Your task to perform on an android device: Open Google Chrome and click the shortcut for Amazon.com Image 0: 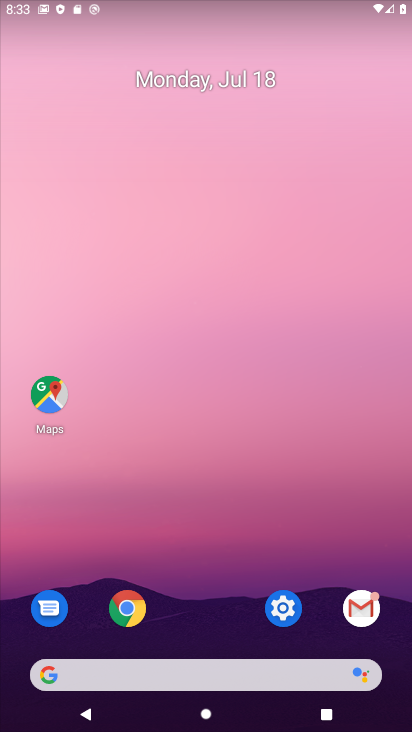
Step 0: press home button
Your task to perform on an android device: Open Google Chrome and click the shortcut for Amazon.com Image 1: 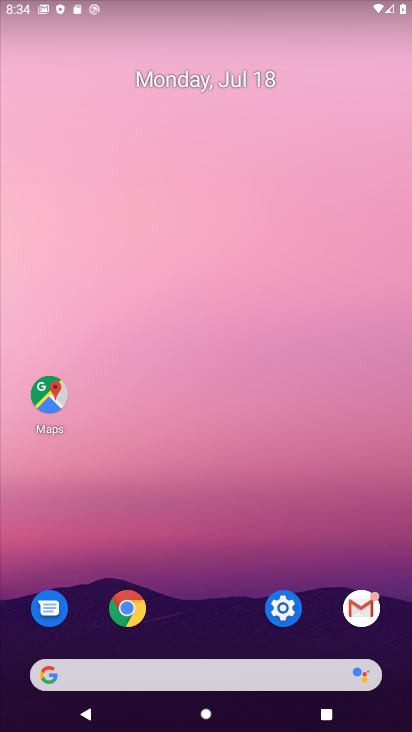
Step 1: click (131, 612)
Your task to perform on an android device: Open Google Chrome and click the shortcut for Amazon.com Image 2: 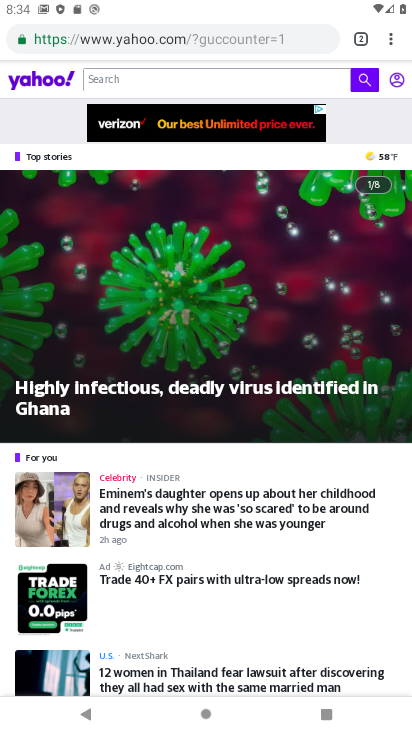
Step 2: click (359, 34)
Your task to perform on an android device: Open Google Chrome and click the shortcut for Amazon.com Image 3: 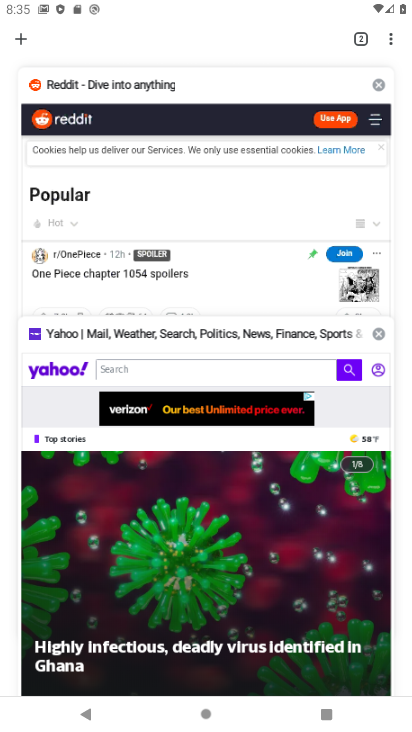
Step 3: click (19, 40)
Your task to perform on an android device: Open Google Chrome and click the shortcut for Amazon.com Image 4: 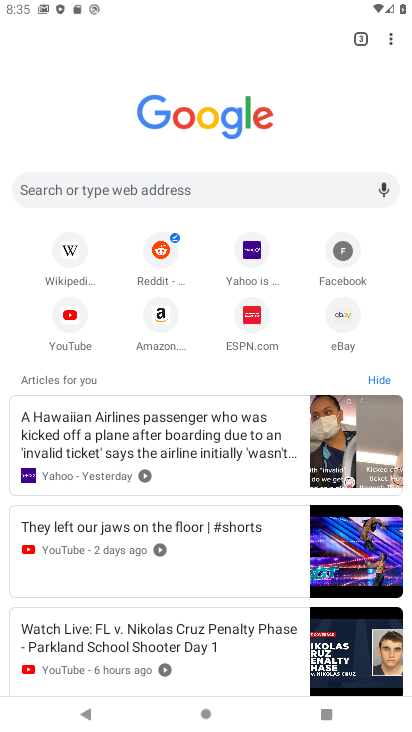
Step 4: click (172, 315)
Your task to perform on an android device: Open Google Chrome and click the shortcut for Amazon.com Image 5: 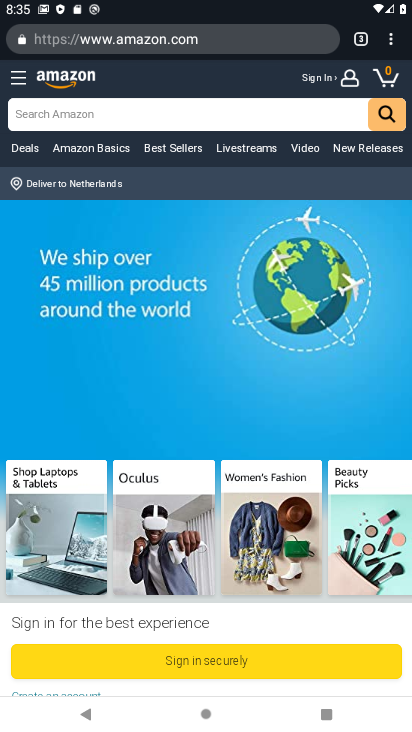
Step 5: click (394, 39)
Your task to perform on an android device: Open Google Chrome and click the shortcut for Amazon.com Image 6: 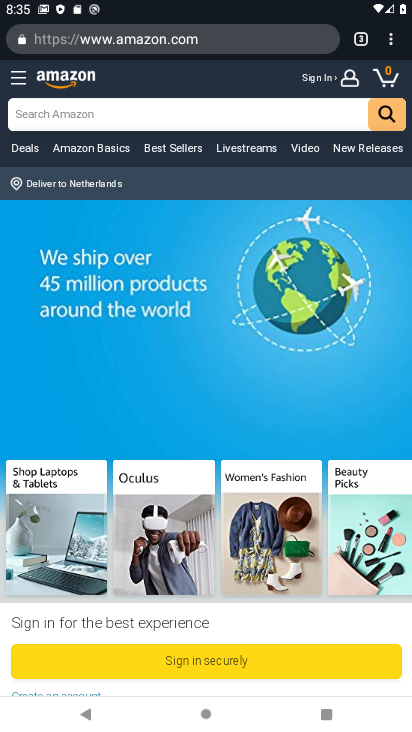
Step 6: click (386, 44)
Your task to perform on an android device: Open Google Chrome and click the shortcut for Amazon.com Image 7: 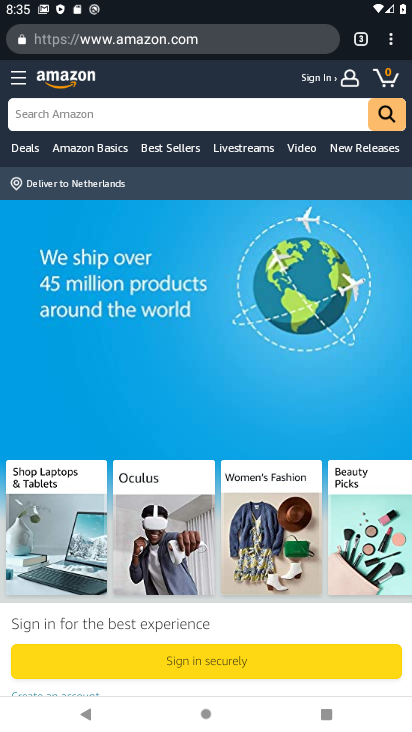
Step 7: click (396, 50)
Your task to perform on an android device: Open Google Chrome and click the shortcut for Amazon.com Image 8: 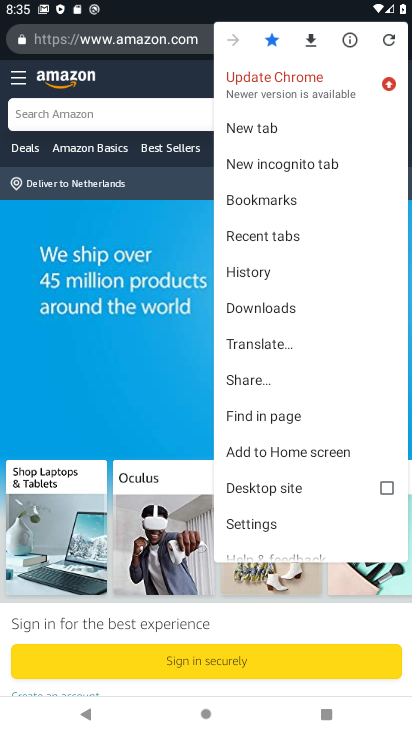
Step 8: click (274, 449)
Your task to perform on an android device: Open Google Chrome and click the shortcut for Amazon.com Image 9: 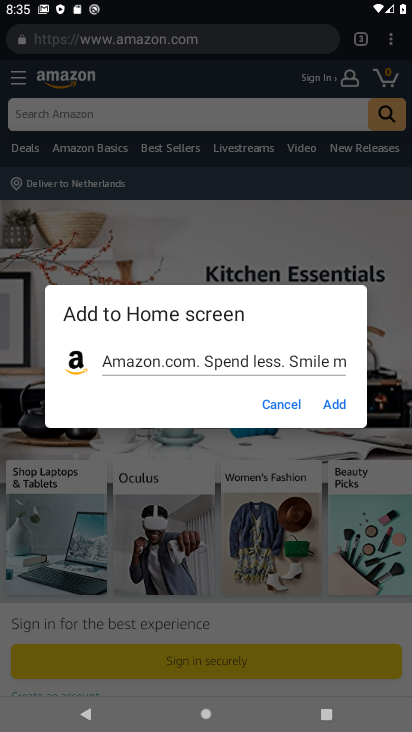
Step 9: click (331, 401)
Your task to perform on an android device: Open Google Chrome and click the shortcut for Amazon.com Image 10: 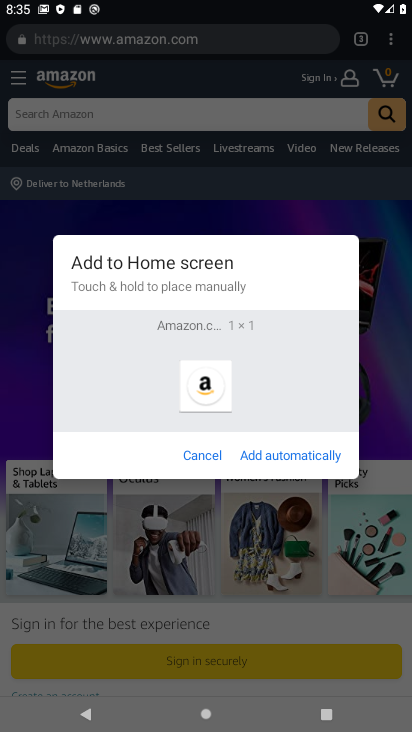
Step 10: click (294, 455)
Your task to perform on an android device: Open Google Chrome and click the shortcut for Amazon.com Image 11: 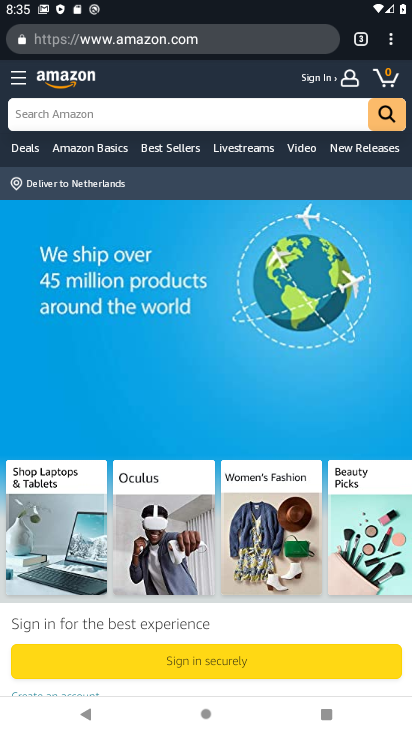
Step 11: task complete